Your task to perform on an android device: set an alarm Image 0: 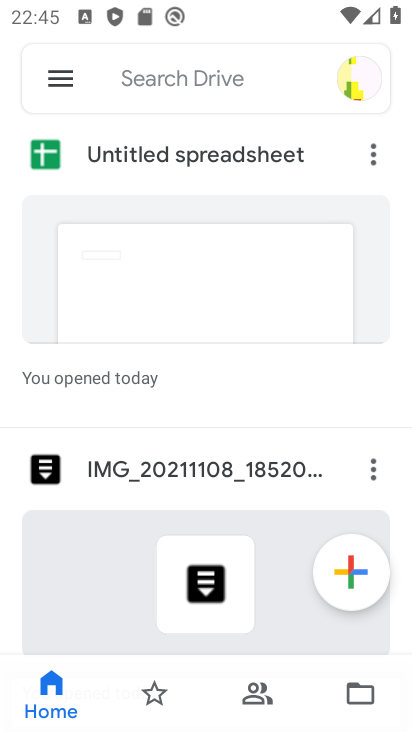
Step 0: press home button
Your task to perform on an android device: set an alarm Image 1: 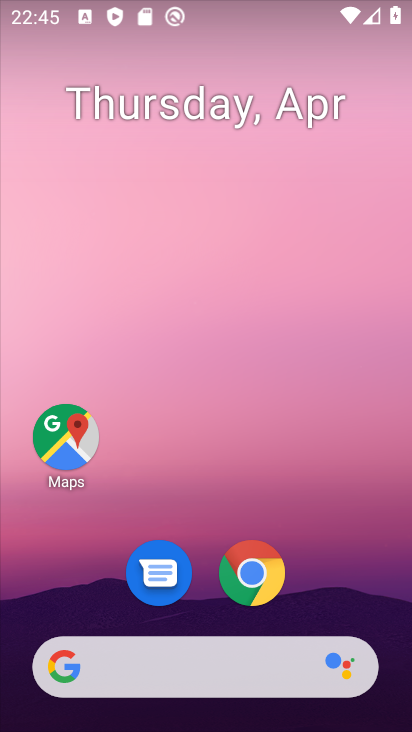
Step 1: drag from (295, 627) to (306, 100)
Your task to perform on an android device: set an alarm Image 2: 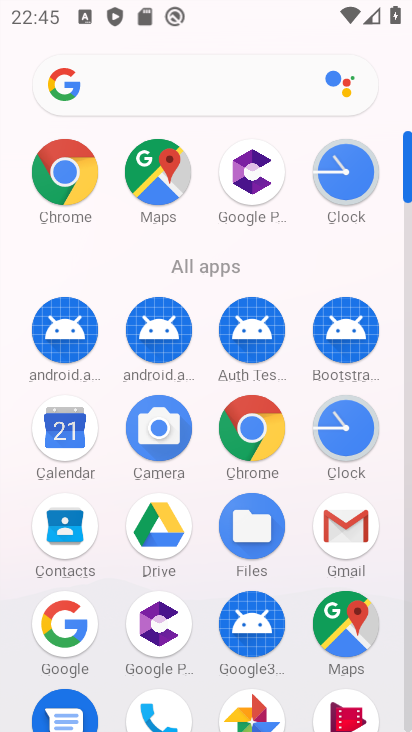
Step 2: click (360, 454)
Your task to perform on an android device: set an alarm Image 3: 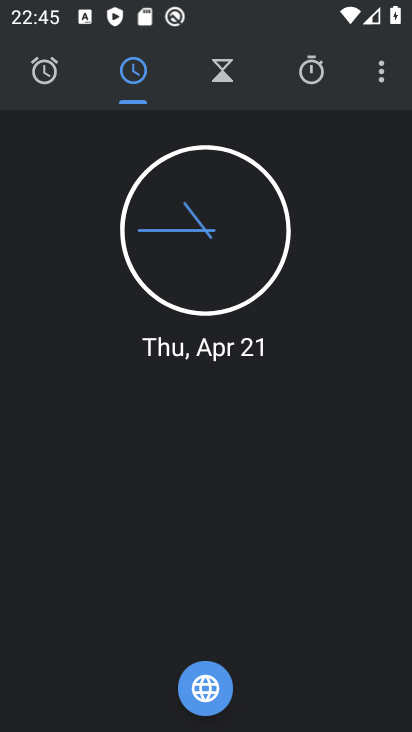
Step 3: click (47, 76)
Your task to perform on an android device: set an alarm Image 4: 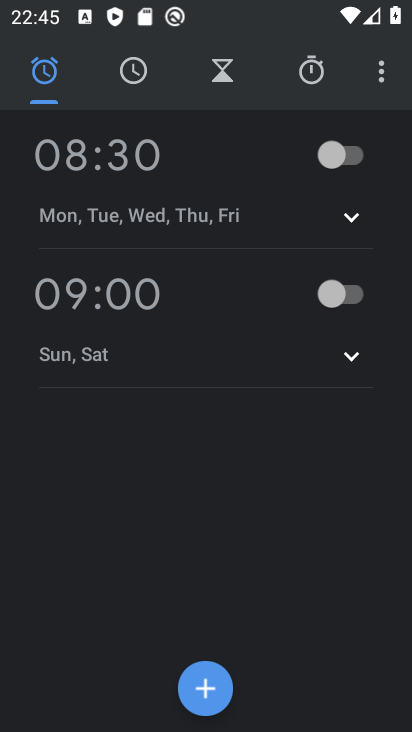
Step 4: click (320, 160)
Your task to perform on an android device: set an alarm Image 5: 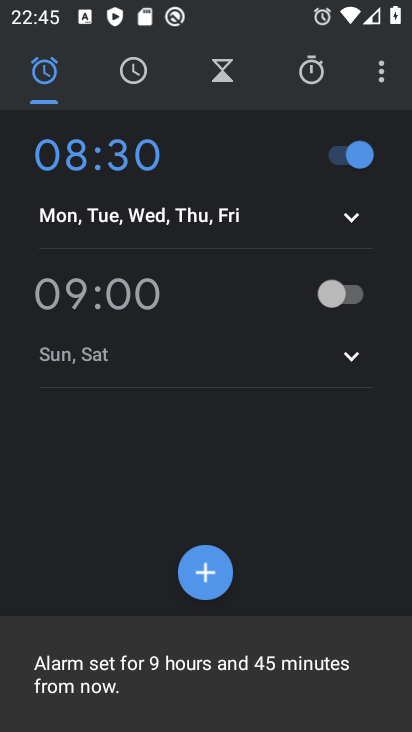
Step 5: task complete